Your task to perform on an android device: add a contact in the contacts app Image 0: 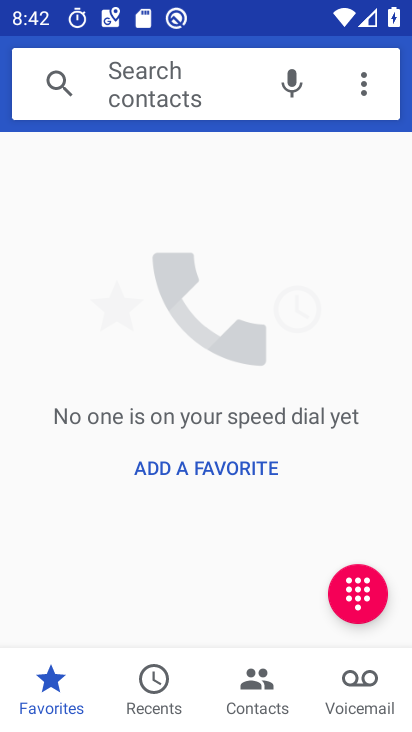
Step 0: click (266, 695)
Your task to perform on an android device: add a contact in the contacts app Image 1: 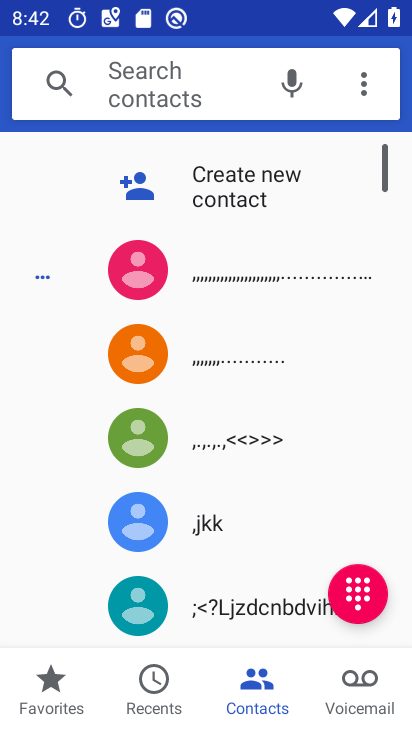
Step 1: click (257, 178)
Your task to perform on an android device: add a contact in the contacts app Image 2: 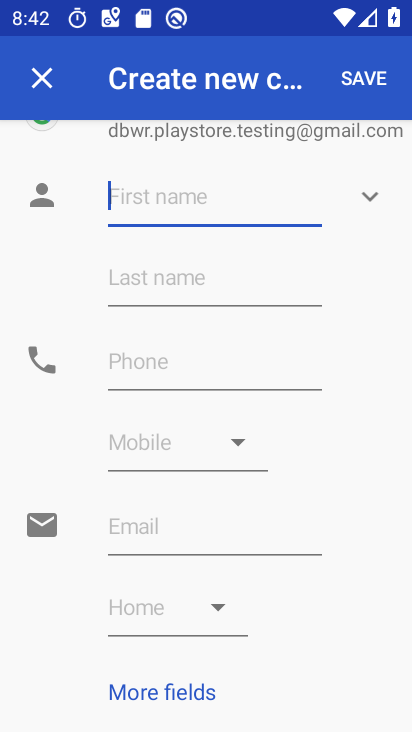
Step 2: type "akjshdakhd"
Your task to perform on an android device: add a contact in the contacts app Image 3: 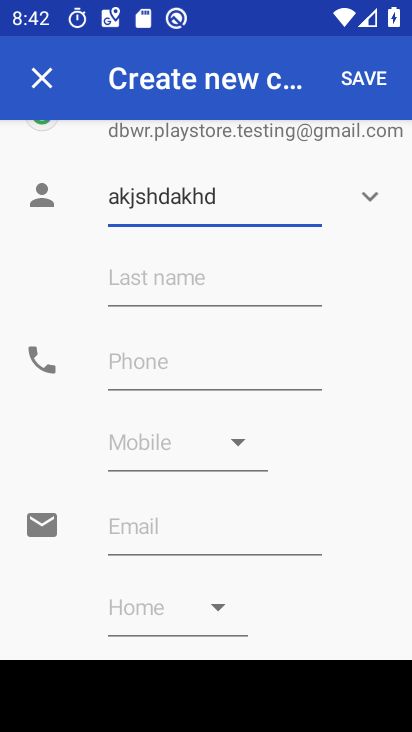
Step 3: click (169, 372)
Your task to perform on an android device: add a contact in the contacts app Image 4: 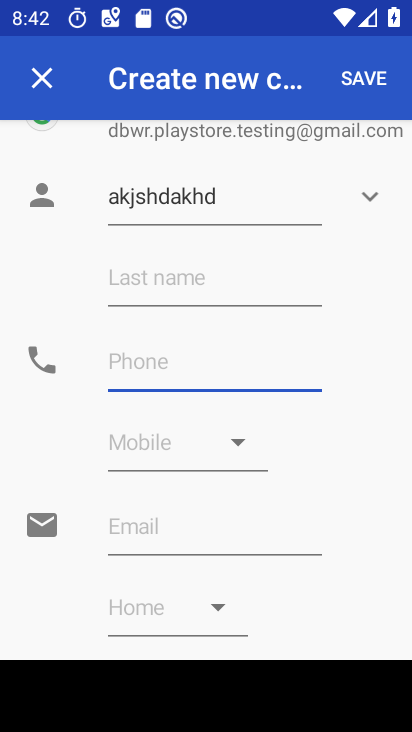
Step 4: type "98983422"
Your task to perform on an android device: add a contact in the contacts app Image 5: 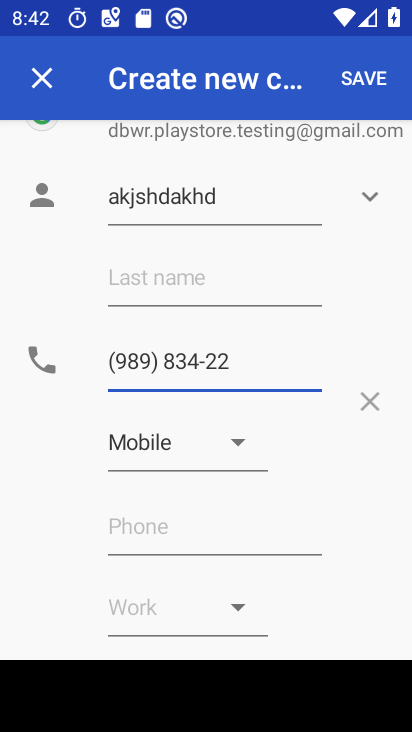
Step 5: click (374, 85)
Your task to perform on an android device: add a contact in the contacts app Image 6: 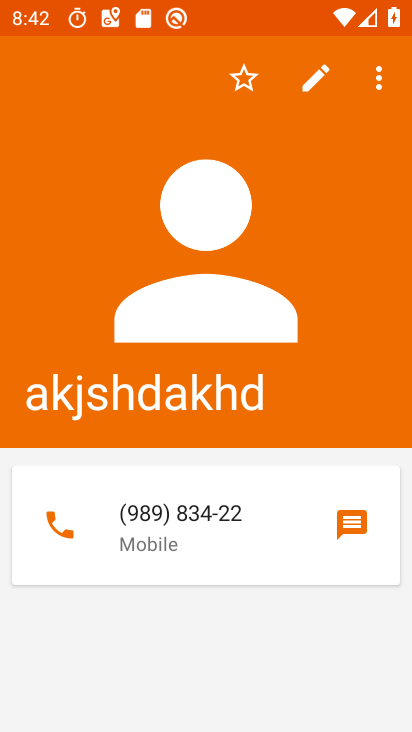
Step 6: task complete